Your task to perform on an android device: empty trash in google photos Image 0: 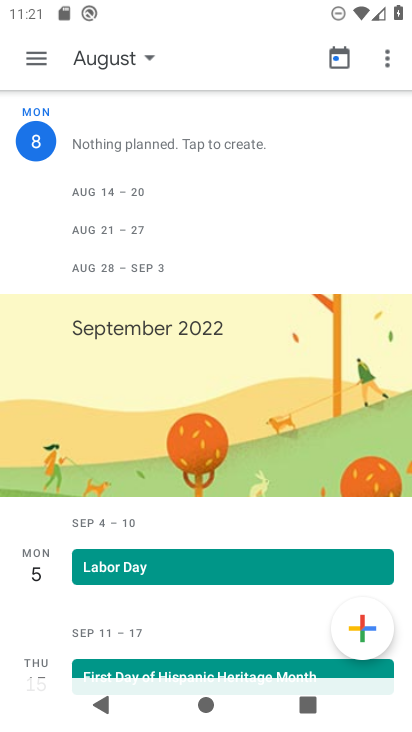
Step 0: click (35, 54)
Your task to perform on an android device: empty trash in google photos Image 1: 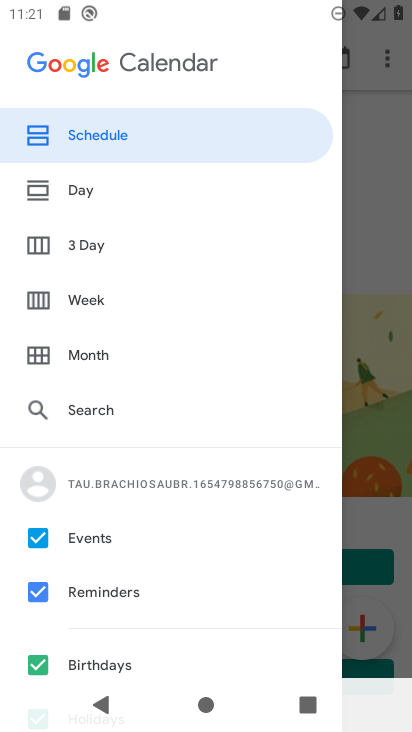
Step 1: press home button
Your task to perform on an android device: empty trash in google photos Image 2: 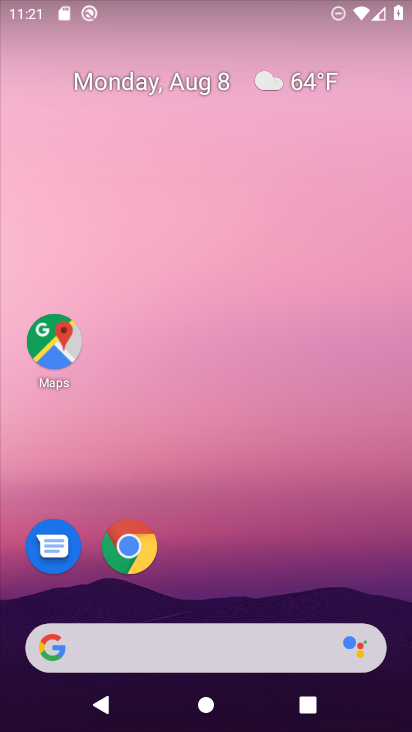
Step 2: drag from (201, 595) to (208, 78)
Your task to perform on an android device: empty trash in google photos Image 3: 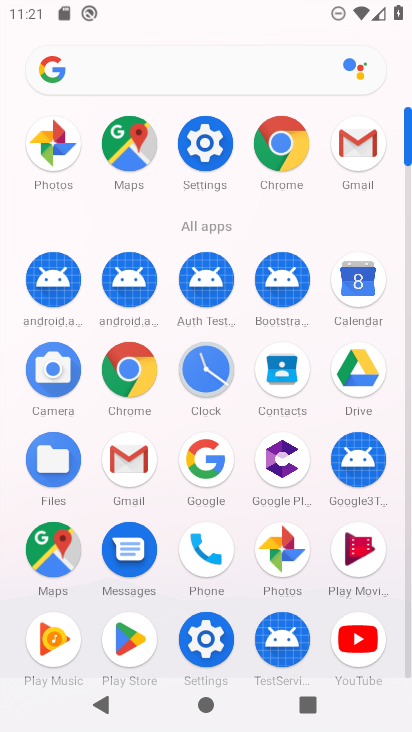
Step 3: click (274, 543)
Your task to perform on an android device: empty trash in google photos Image 4: 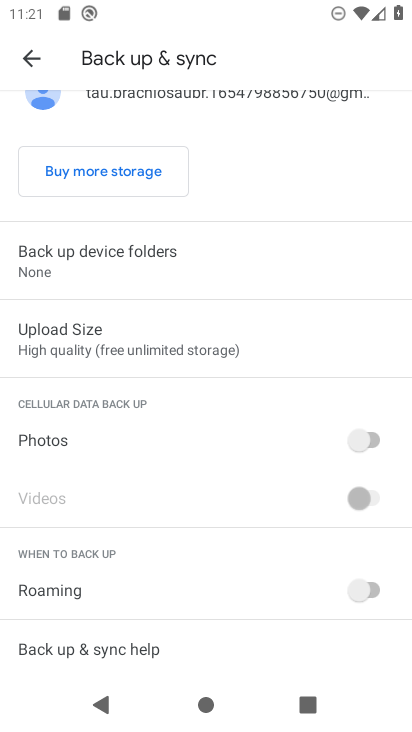
Step 4: click (20, 54)
Your task to perform on an android device: empty trash in google photos Image 5: 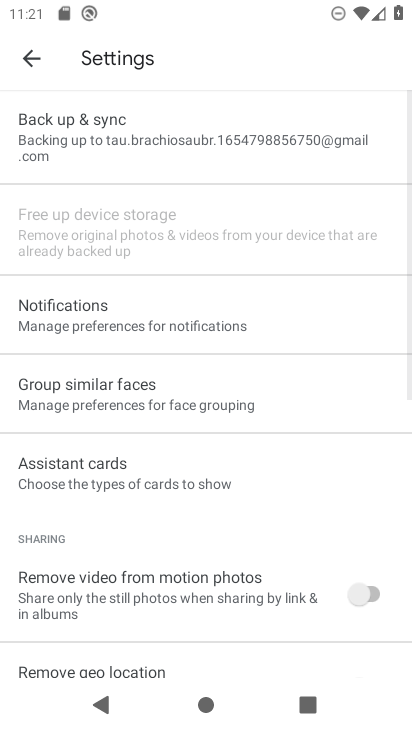
Step 5: click (32, 57)
Your task to perform on an android device: empty trash in google photos Image 6: 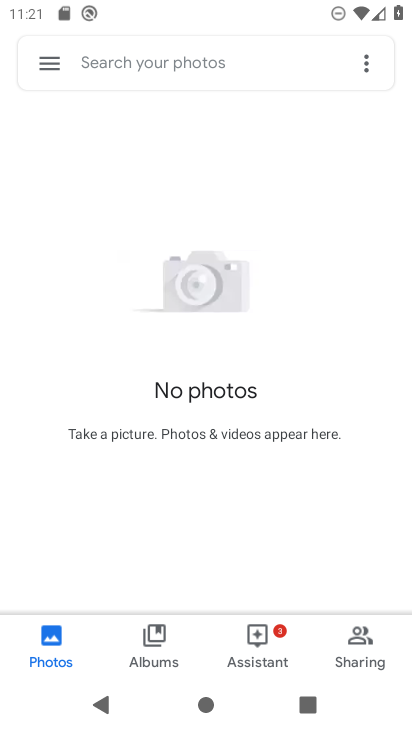
Step 6: click (43, 57)
Your task to perform on an android device: empty trash in google photos Image 7: 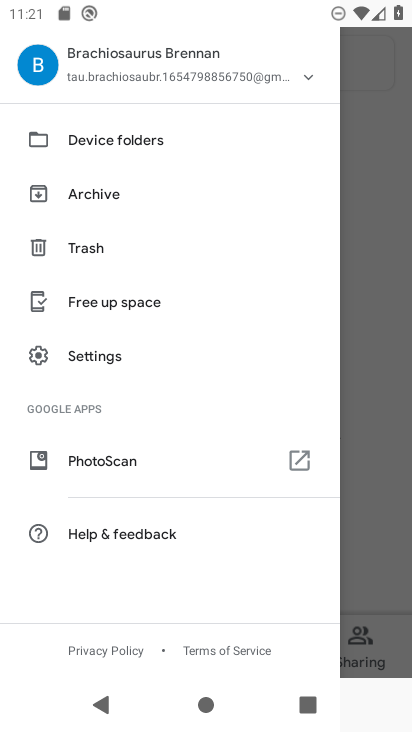
Step 7: click (99, 251)
Your task to perform on an android device: empty trash in google photos Image 8: 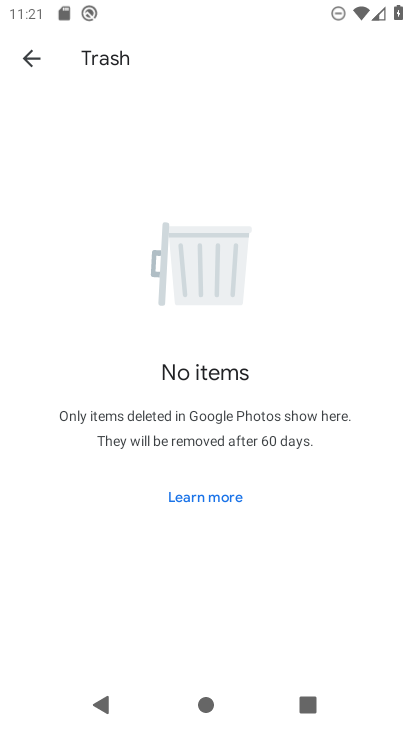
Step 8: task complete